Your task to perform on an android device: open a new tab in the chrome app Image 0: 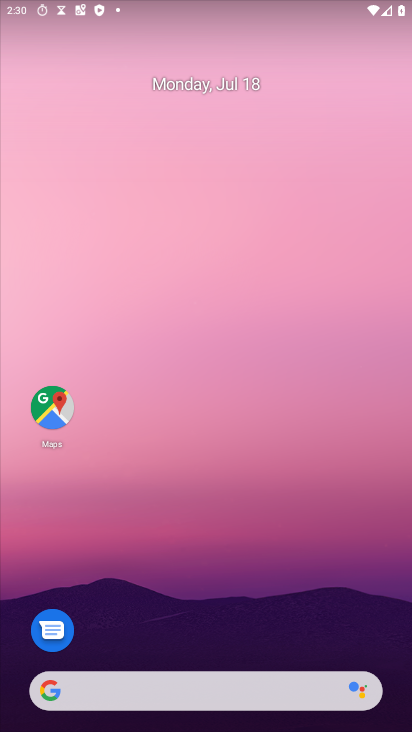
Step 0: drag from (163, 514) to (255, 5)
Your task to perform on an android device: open a new tab in the chrome app Image 1: 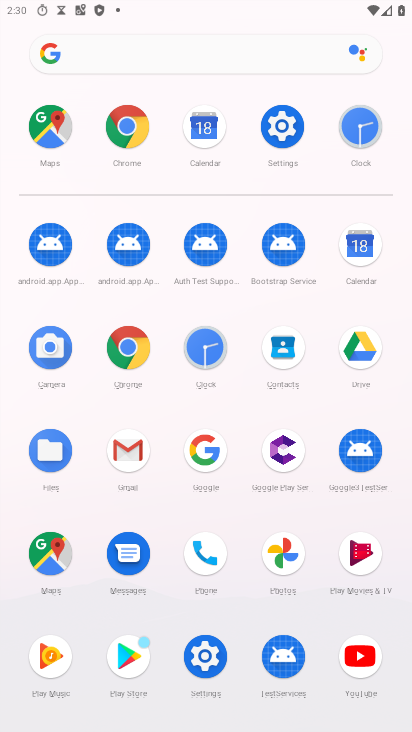
Step 1: click (131, 352)
Your task to perform on an android device: open a new tab in the chrome app Image 2: 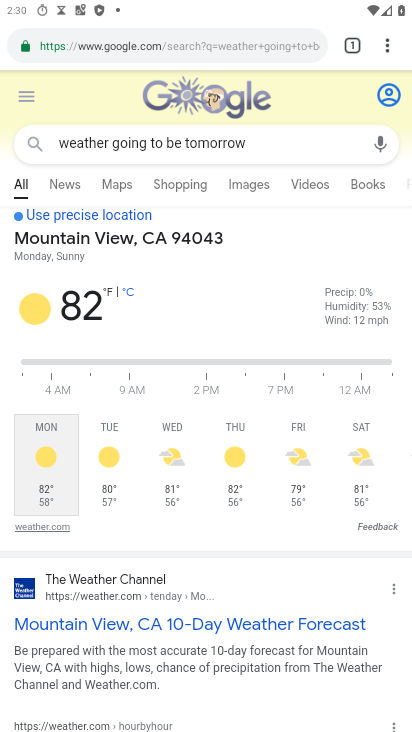
Step 2: task complete